Your task to perform on an android device: Go to eBay Image 0: 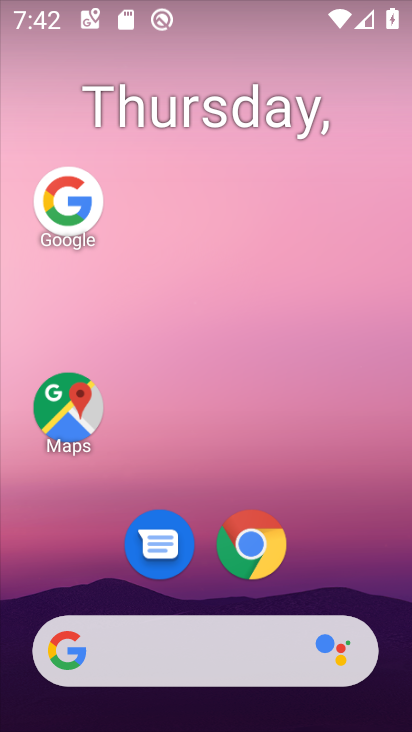
Step 0: drag from (357, 505) to (349, 128)
Your task to perform on an android device: Go to eBay Image 1: 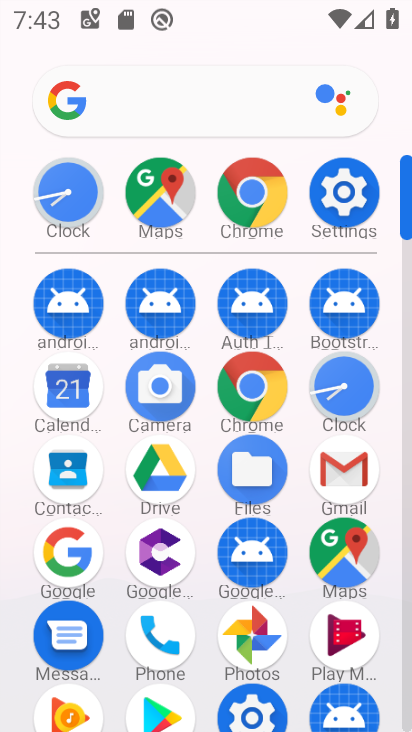
Step 1: click (254, 213)
Your task to perform on an android device: Go to eBay Image 2: 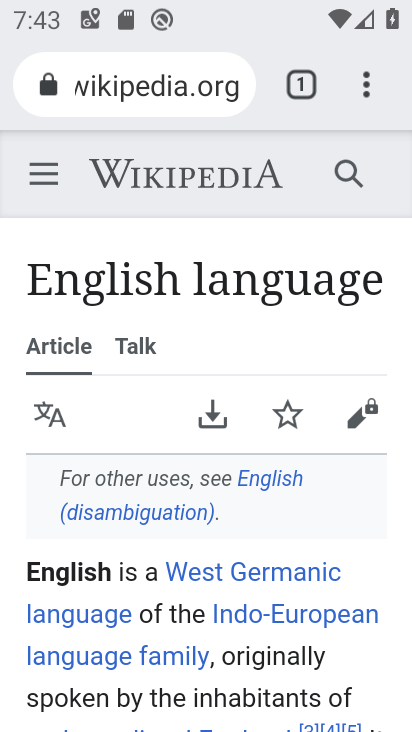
Step 2: click (303, 74)
Your task to perform on an android device: Go to eBay Image 3: 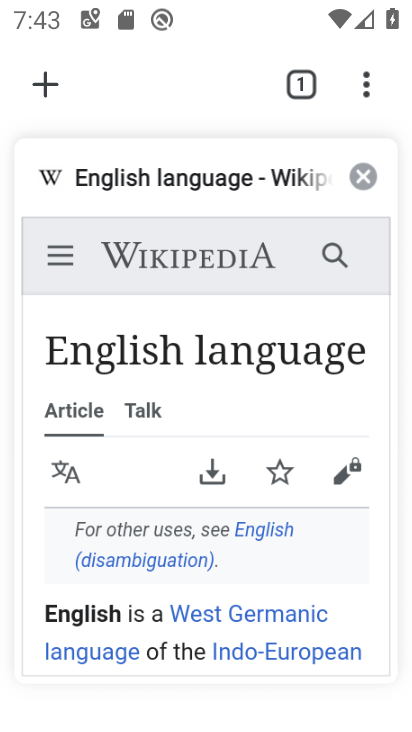
Step 3: click (43, 96)
Your task to perform on an android device: Go to eBay Image 4: 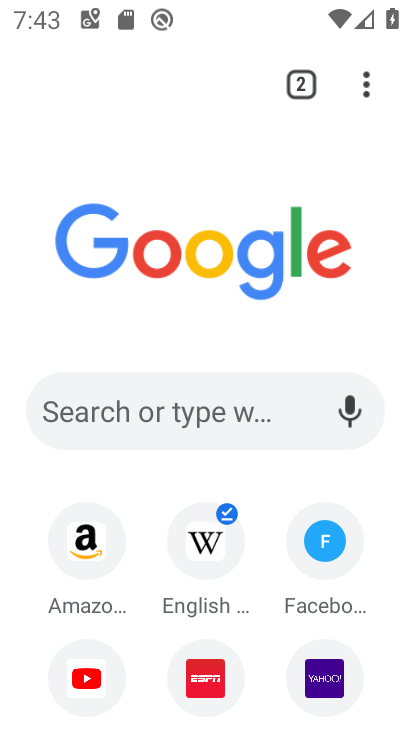
Step 4: click (179, 400)
Your task to perform on an android device: Go to eBay Image 5: 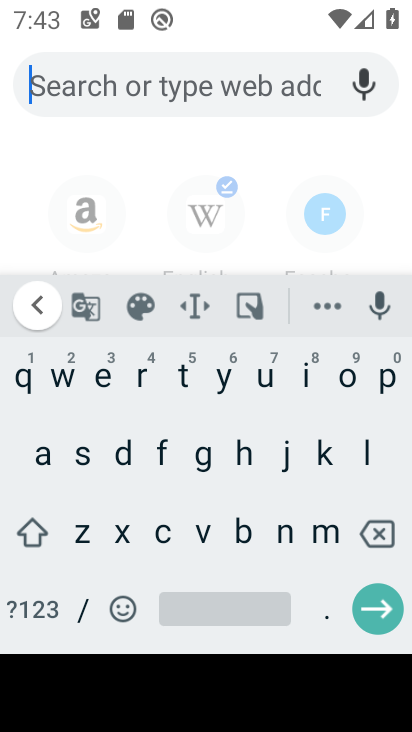
Step 5: click (107, 390)
Your task to perform on an android device: Go to eBay Image 6: 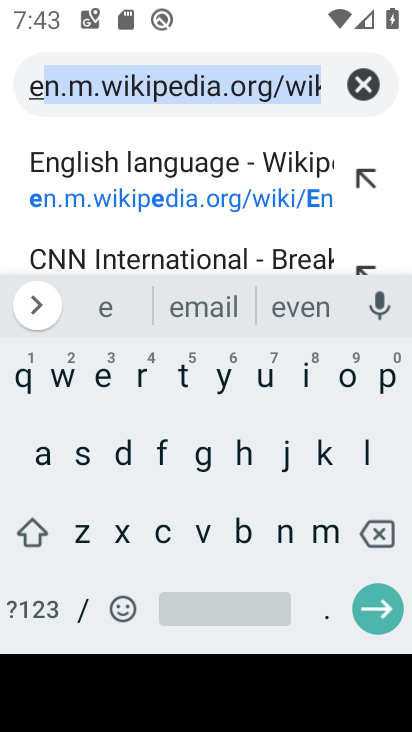
Step 6: click (238, 531)
Your task to perform on an android device: Go to eBay Image 7: 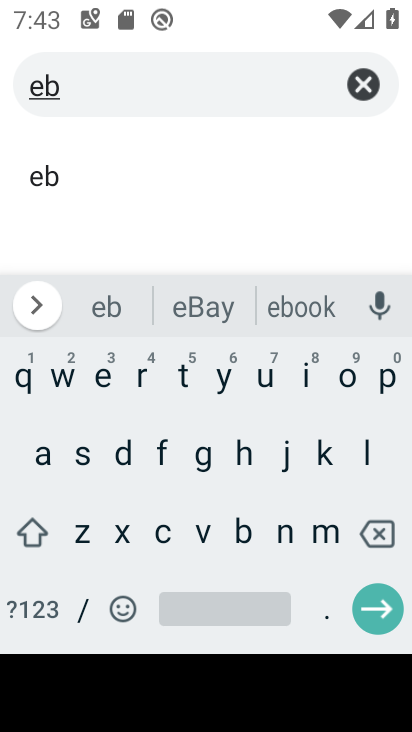
Step 7: click (208, 309)
Your task to perform on an android device: Go to eBay Image 8: 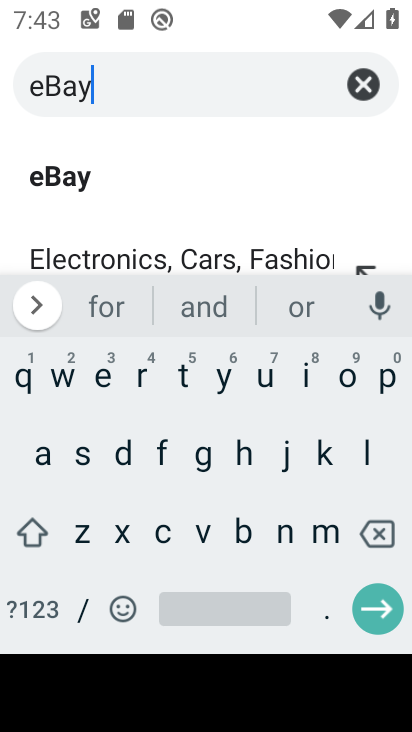
Step 8: click (385, 609)
Your task to perform on an android device: Go to eBay Image 9: 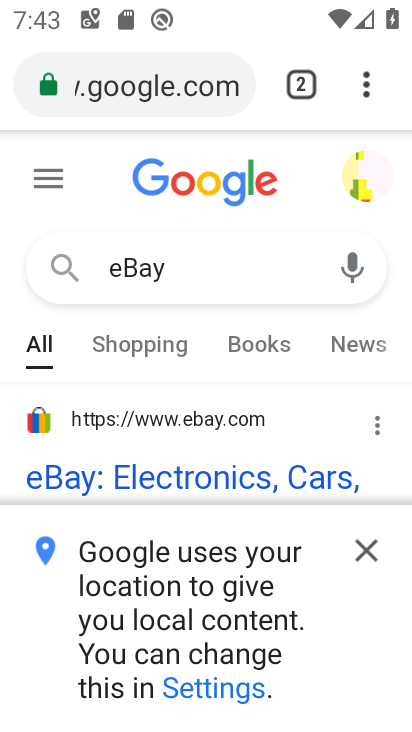
Step 9: click (160, 484)
Your task to perform on an android device: Go to eBay Image 10: 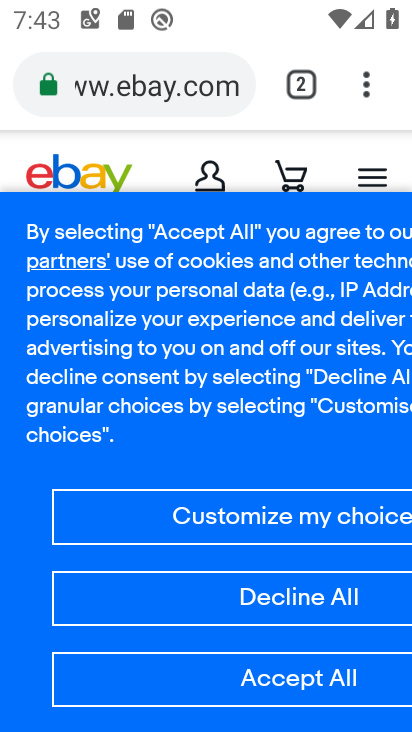
Step 10: click (252, 605)
Your task to perform on an android device: Go to eBay Image 11: 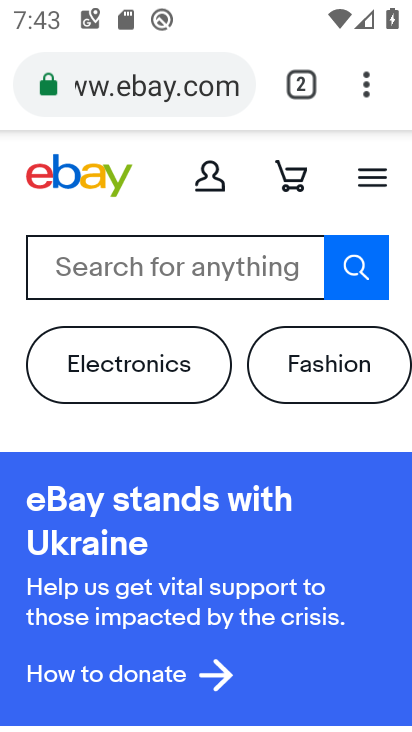
Step 11: task complete